Your task to perform on an android device: check data usage Image 0: 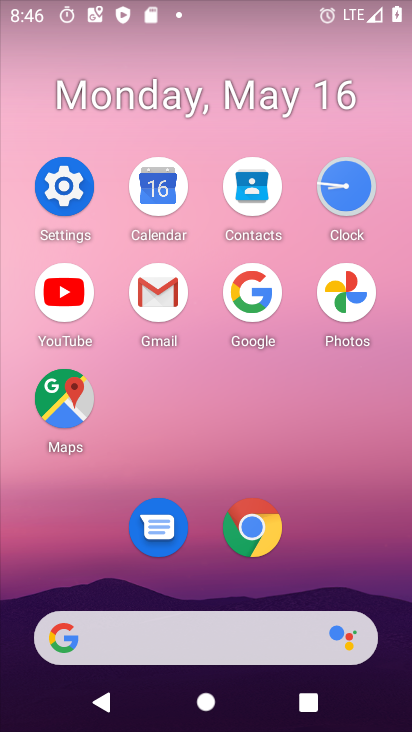
Step 0: click (60, 191)
Your task to perform on an android device: check data usage Image 1: 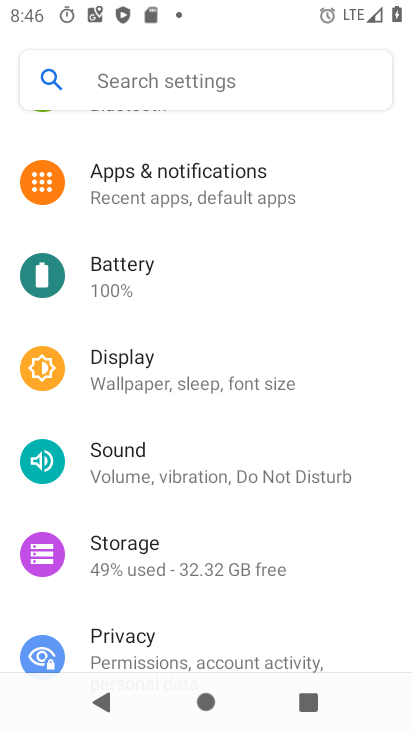
Step 1: drag from (295, 233) to (278, 519)
Your task to perform on an android device: check data usage Image 2: 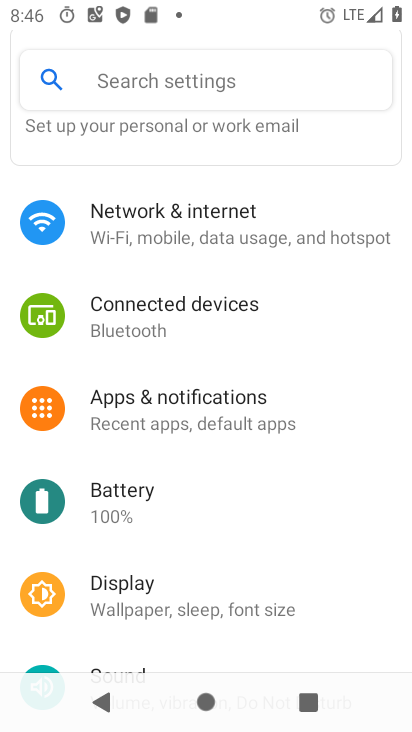
Step 2: click (248, 204)
Your task to perform on an android device: check data usage Image 3: 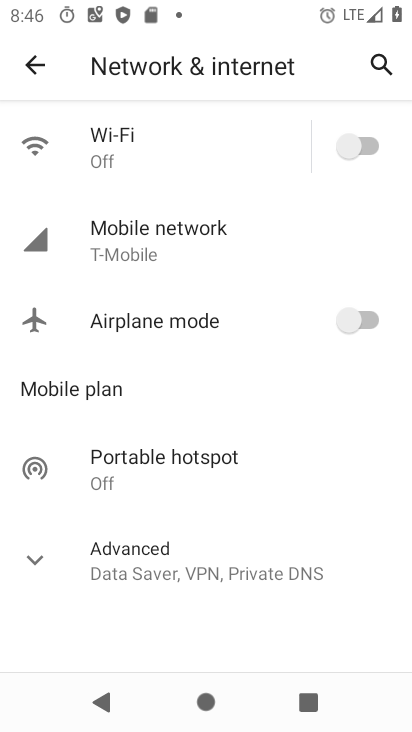
Step 3: click (185, 257)
Your task to perform on an android device: check data usage Image 4: 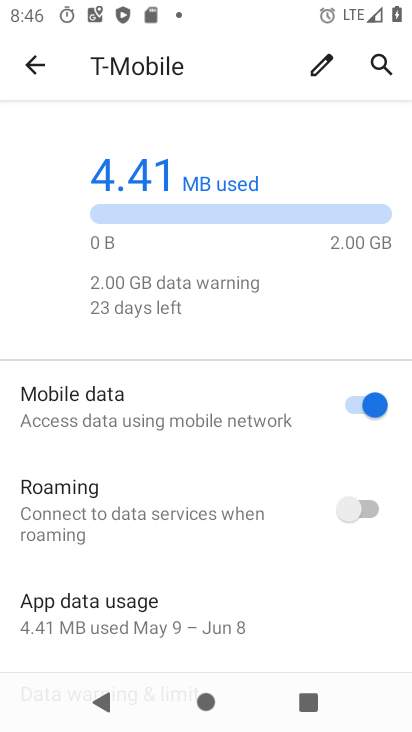
Step 4: drag from (219, 599) to (216, 275)
Your task to perform on an android device: check data usage Image 5: 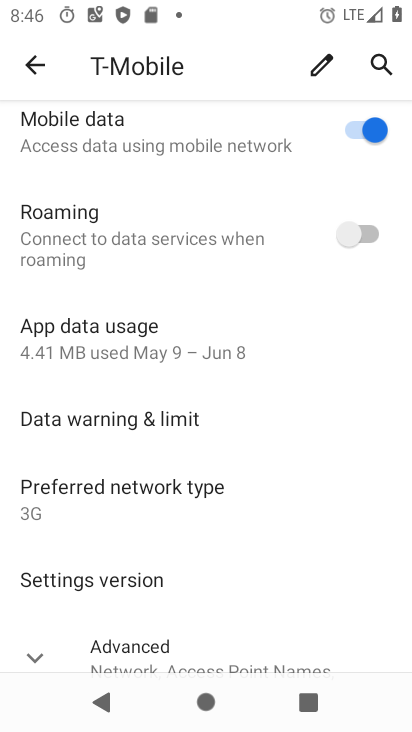
Step 5: click (193, 351)
Your task to perform on an android device: check data usage Image 6: 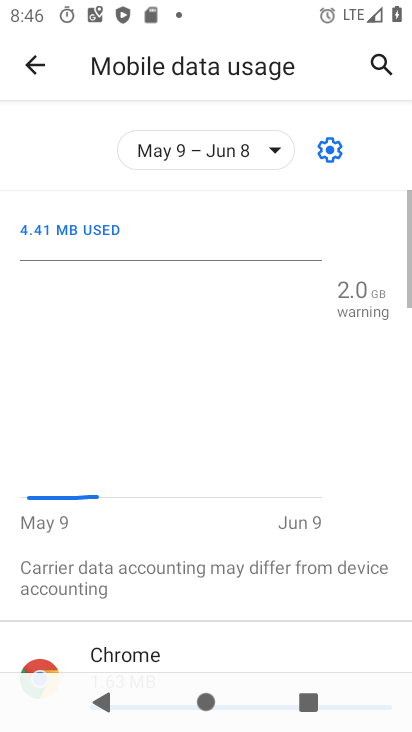
Step 6: task complete